Your task to perform on an android device: toggle javascript in the chrome app Image 0: 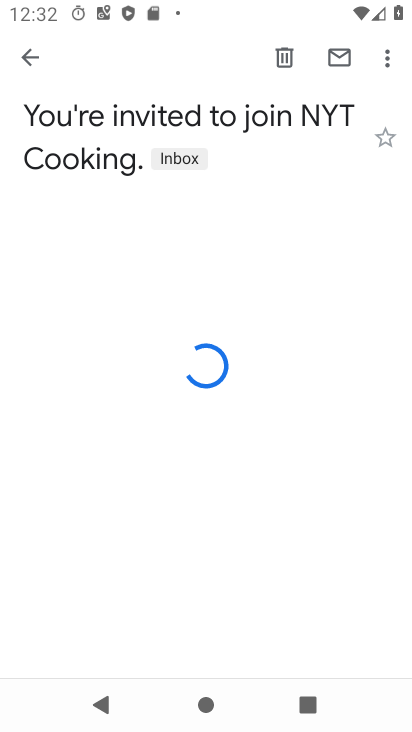
Step 0: press home button
Your task to perform on an android device: toggle javascript in the chrome app Image 1: 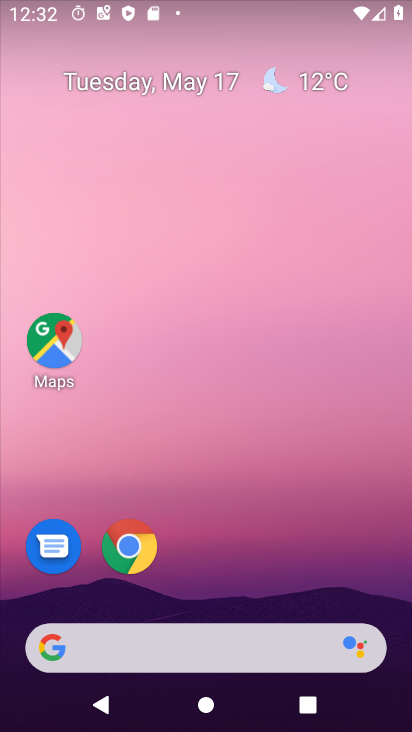
Step 1: click (140, 560)
Your task to perform on an android device: toggle javascript in the chrome app Image 2: 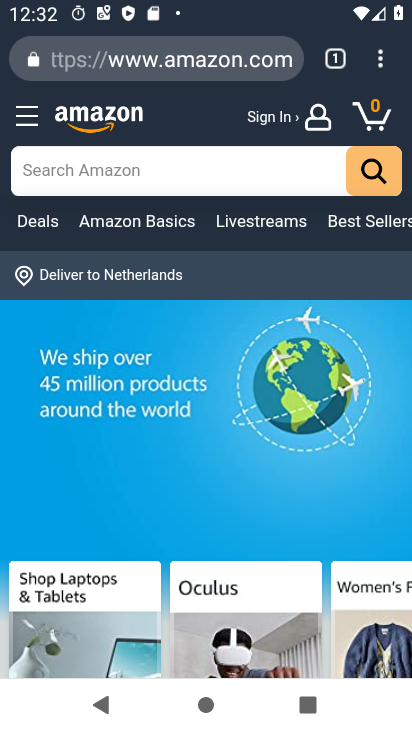
Step 2: drag from (387, 54) to (233, 565)
Your task to perform on an android device: toggle javascript in the chrome app Image 3: 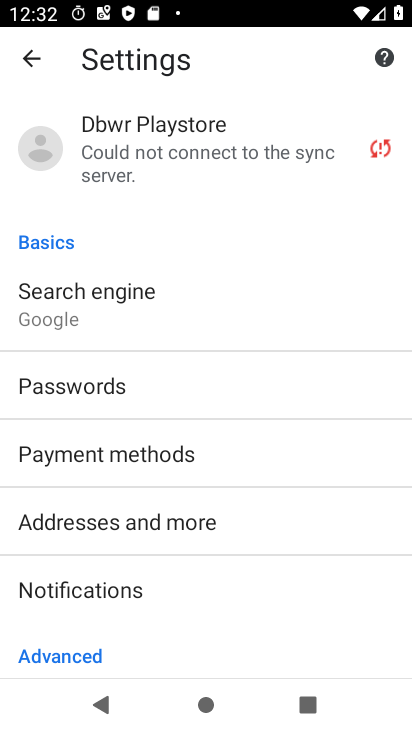
Step 3: drag from (231, 575) to (326, 267)
Your task to perform on an android device: toggle javascript in the chrome app Image 4: 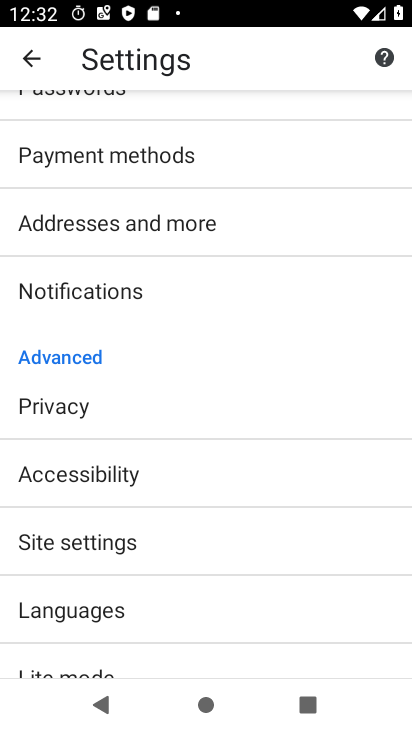
Step 4: click (129, 541)
Your task to perform on an android device: toggle javascript in the chrome app Image 5: 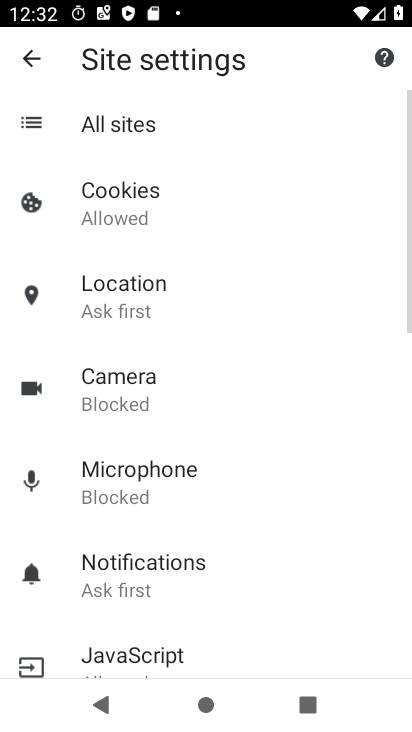
Step 5: drag from (192, 603) to (318, 194)
Your task to perform on an android device: toggle javascript in the chrome app Image 6: 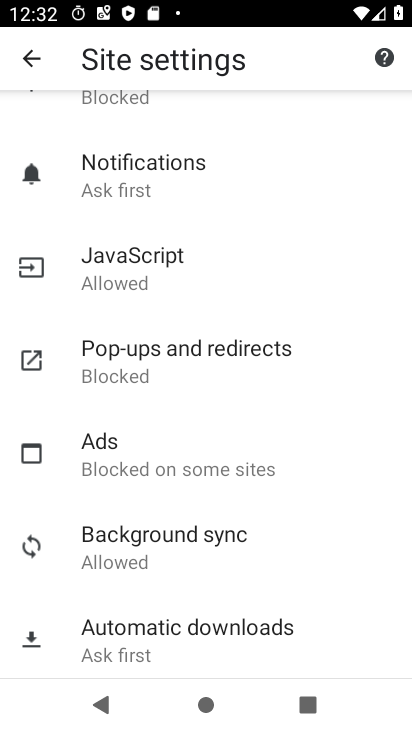
Step 6: click (151, 262)
Your task to perform on an android device: toggle javascript in the chrome app Image 7: 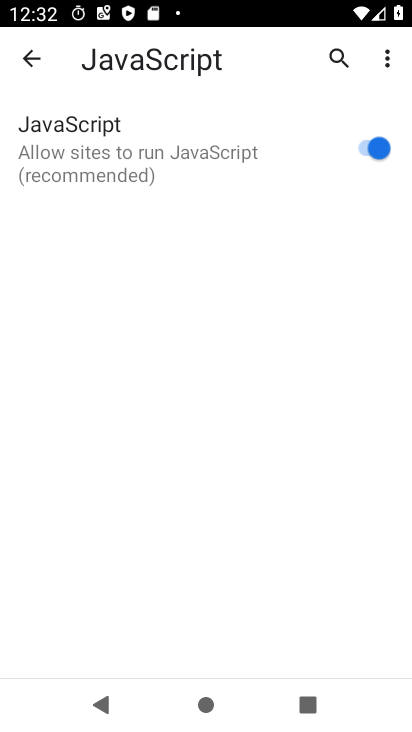
Step 7: click (360, 148)
Your task to perform on an android device: toggle javascript in the chrome app Image 8: 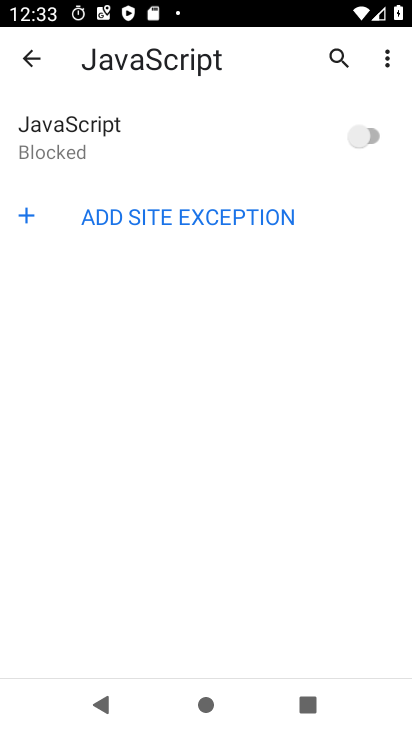
Step 8: task complete